Your task to perform on an android device: change timer sound Image 0: 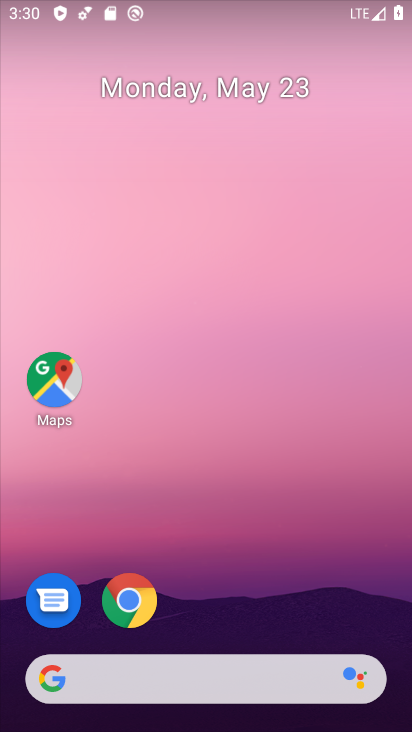
Step 0: drag from (225, 636) to (240, 0)
Your task to perform on an android device: change timer sound Image 1: 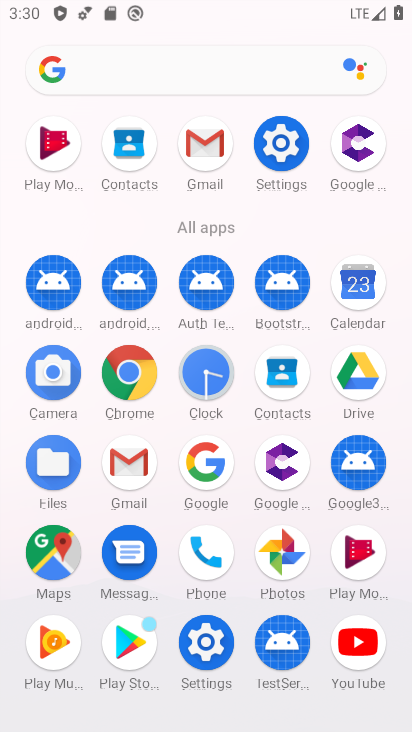
Step 1: click (203, 380)
Your task to perform on an android device: change timer sound Image 2: 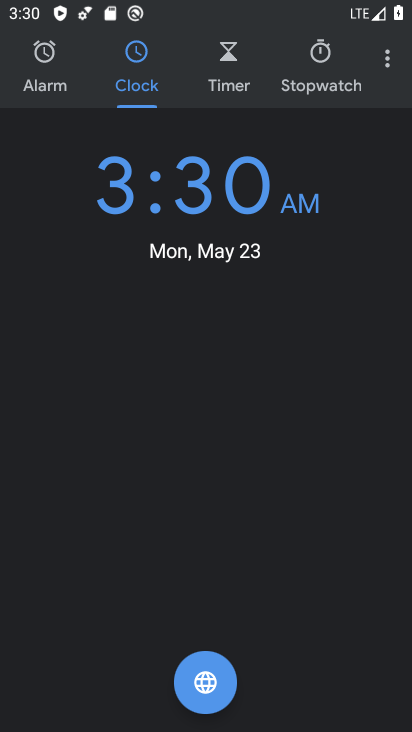
Step 2: click (388, 60)
Your task to perform on an android device: change timer sound Image 3: 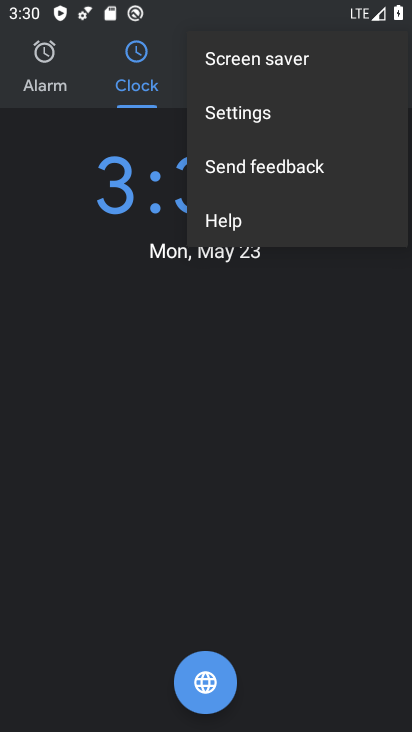
Step 3: click (243, 126)
Your task to perform on an android device: change timer sound Image 4: 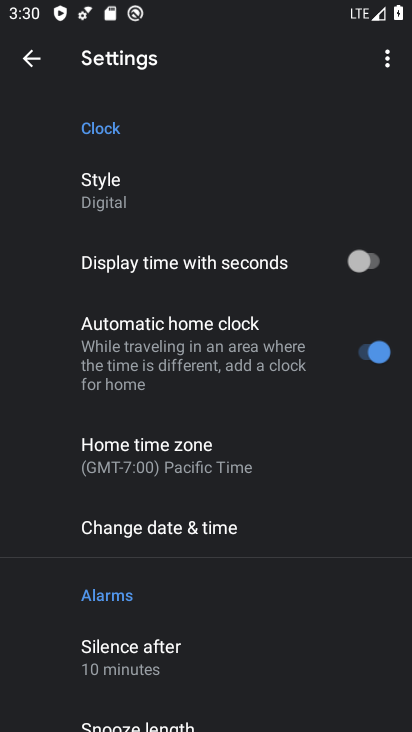
Step 4: drag from (211, 581) to (202, 154)
Your task to perform on an android device: change timer sound Image 5: 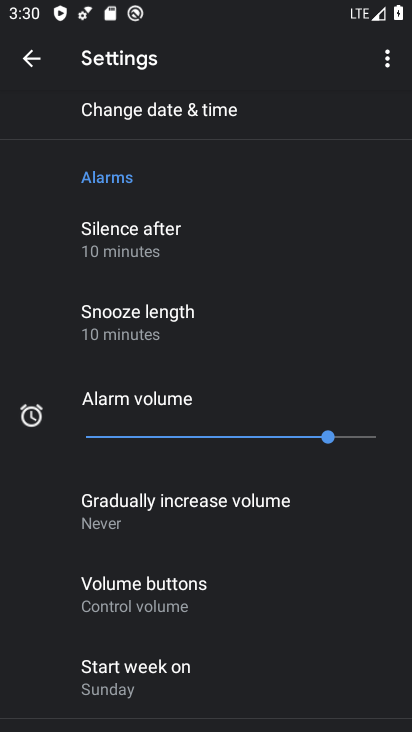
Step 5: drag from (192, 364) to (192, 125)
Your task to perform on an android device: change timer sound Image 6: 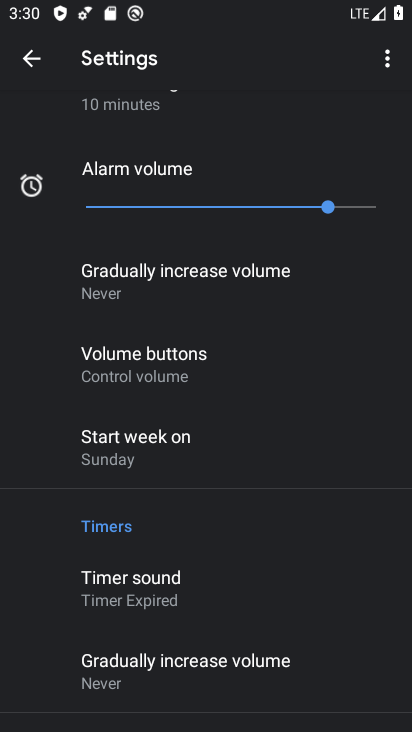
Step 6: click (161, 584)
Your task to perform on an android device: change timer sound Image 7: 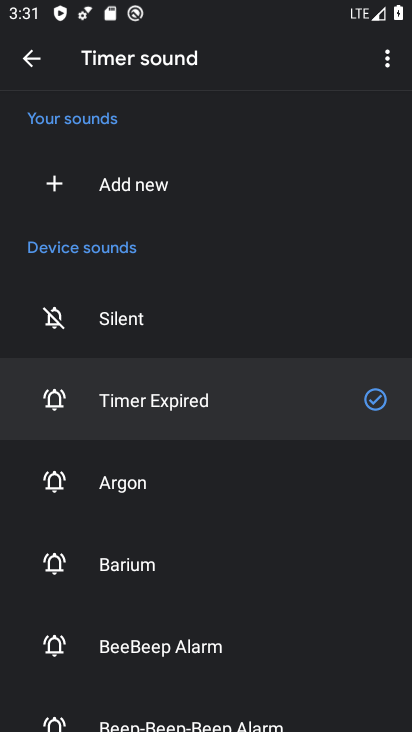
Step 7: click (116, 485)
Your task to perform on an android device: change timer sound Image 8: 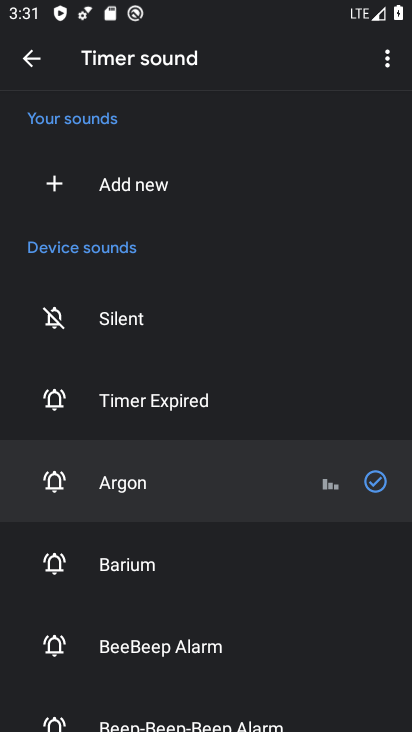
Step 8: task complete